Your task to perform on an android device: Do I have any events tomorrow? Image 0: 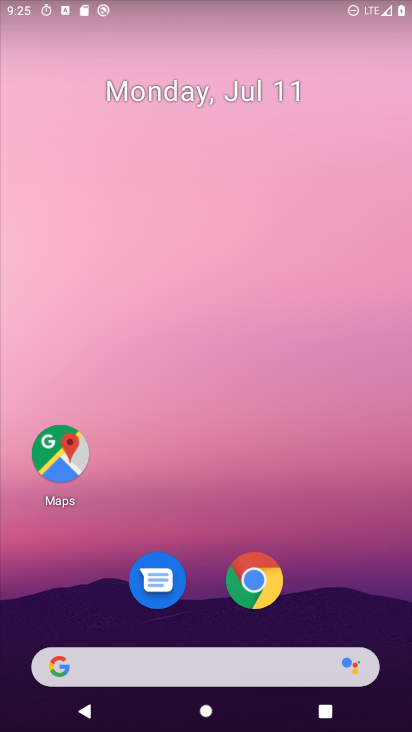
Step 0: drag from (331, 598) to (263, 50)
Your task to perform on an android device: Do I have any events tomorrow? Image 1: 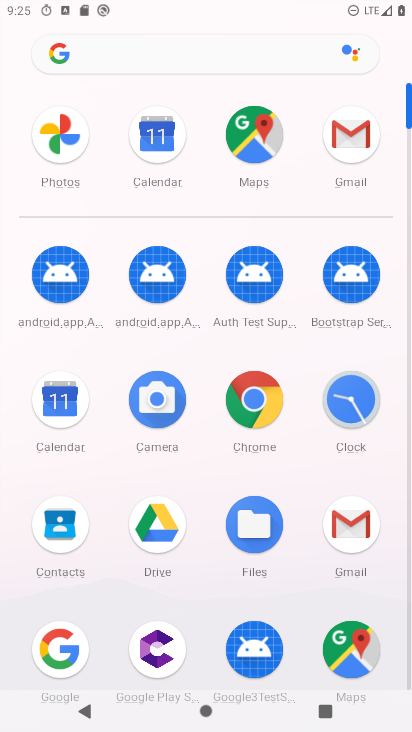
Step 1: click (164, 137)
Your task to perform on an android device: Do I have any events tomorrow? Image 2: 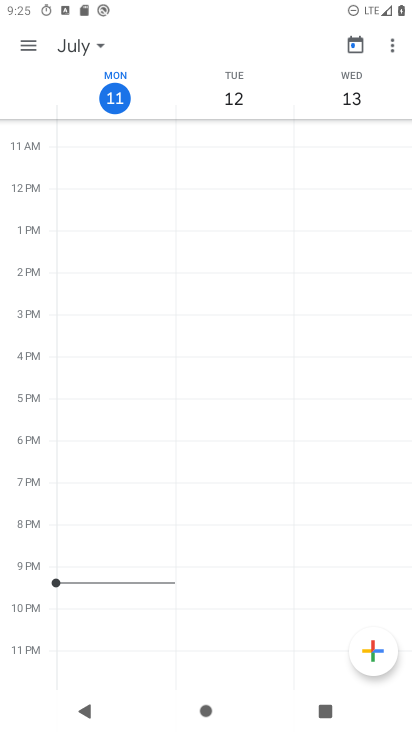
Step 2: task complete